Your task to perform on an android device: choose inbox layout in the gmail app Image 0: 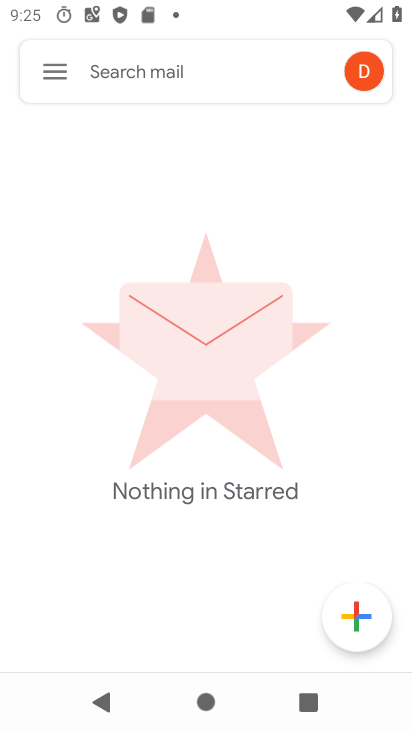
Step 0: click (19, 59)
Your task to perform on an android device: choose inbox layout in the gmail app Image 1: 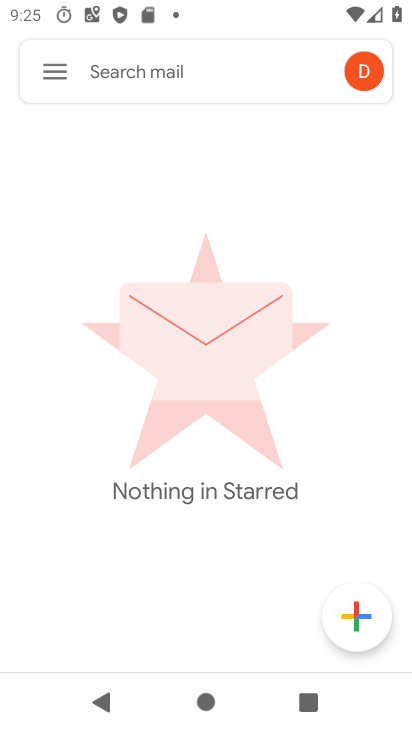
Step 1: click (55, 71)
Your task to perform on an android device: choose inbox layout in the gmail app Image 2: 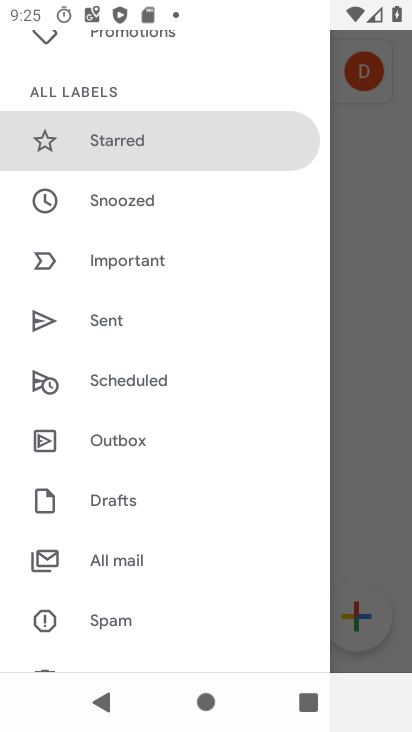
Step 2: drag from (145, 472) to (144, 55)
Your task to perform on an android device: choose inbox layout in the gmail app Image 3: 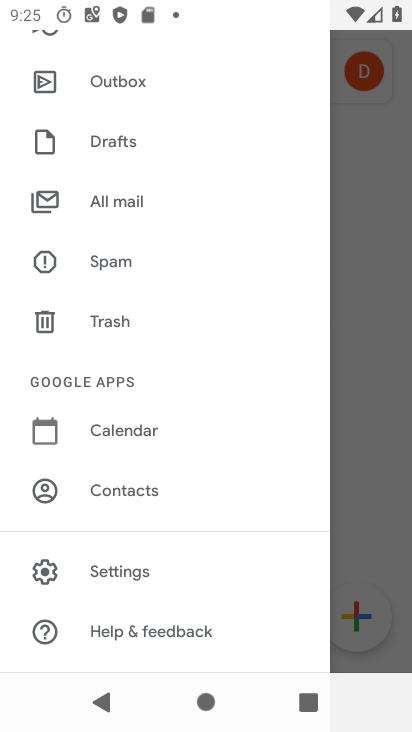
Step 3: click (117, 571)
Your task to perform on an android device: choose inbox layout in the gmail app Image 4: 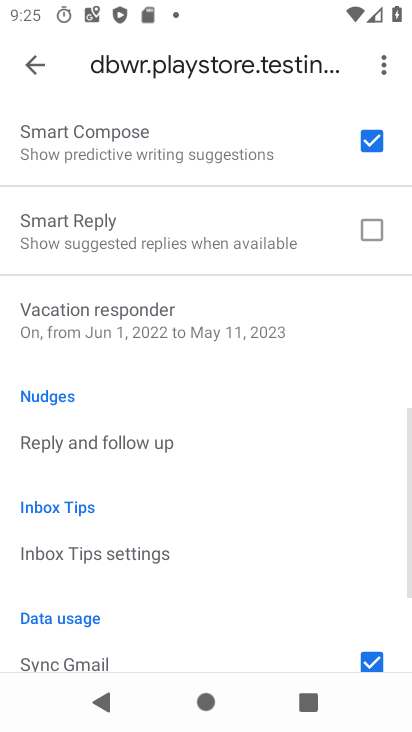
Step 4: drag from (235, 175) to (175, 623)
Your task to perform on an android device: choose inbox layout in the gmail app Image 5: 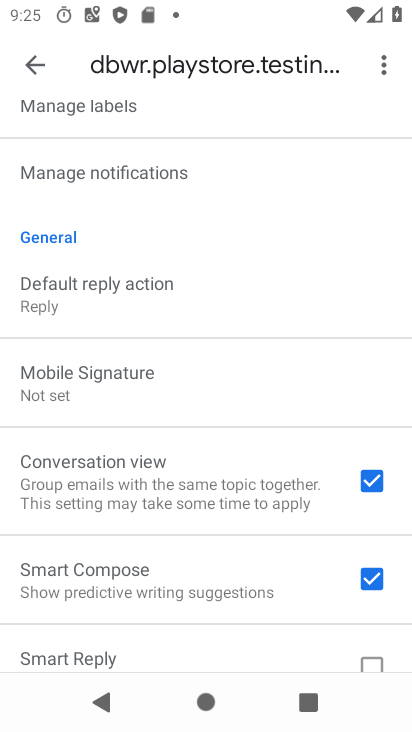
Step 5: drag from (129, 127) to (134, 615)
Your task to perform on an android device: choose inbox layout in the gmail app Image 6: 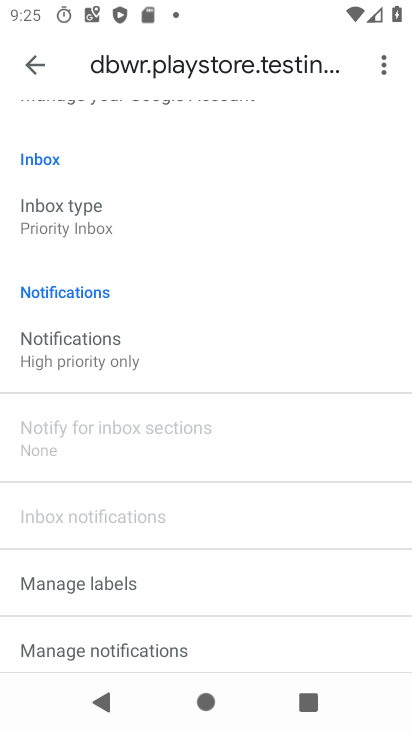
Step 6: click (65, 223)
Your task to perform on an android device: choose inbox layout in the gmail app Image 7: 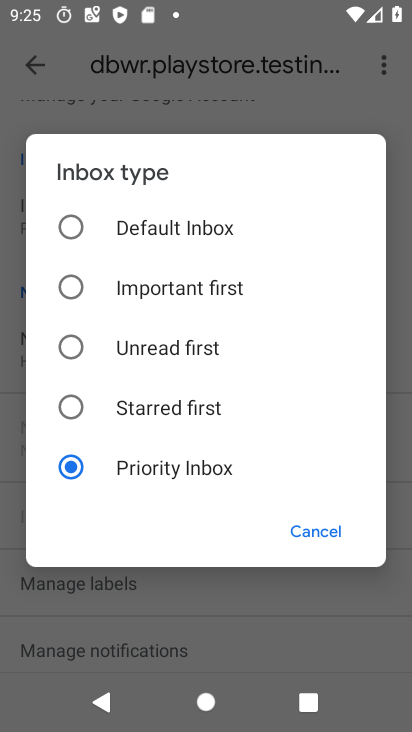
Step 7: click (79, 345)
Your task to perform on an android device: choose inbox layout in the gmail app Image 8: 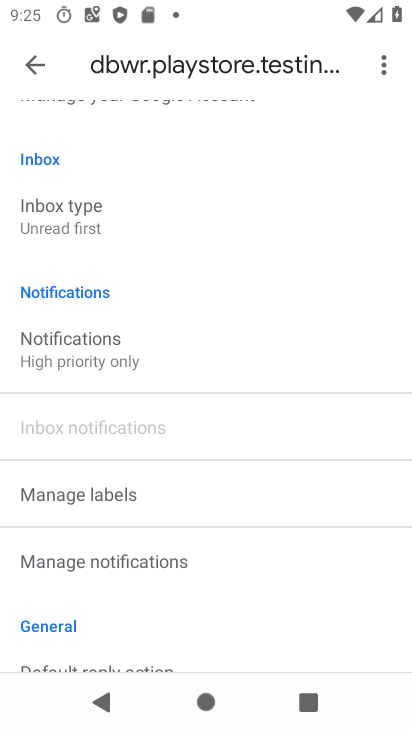
Step 8: task complete